Your task to perform on an android device: turn off picture-in-picture Image 0: 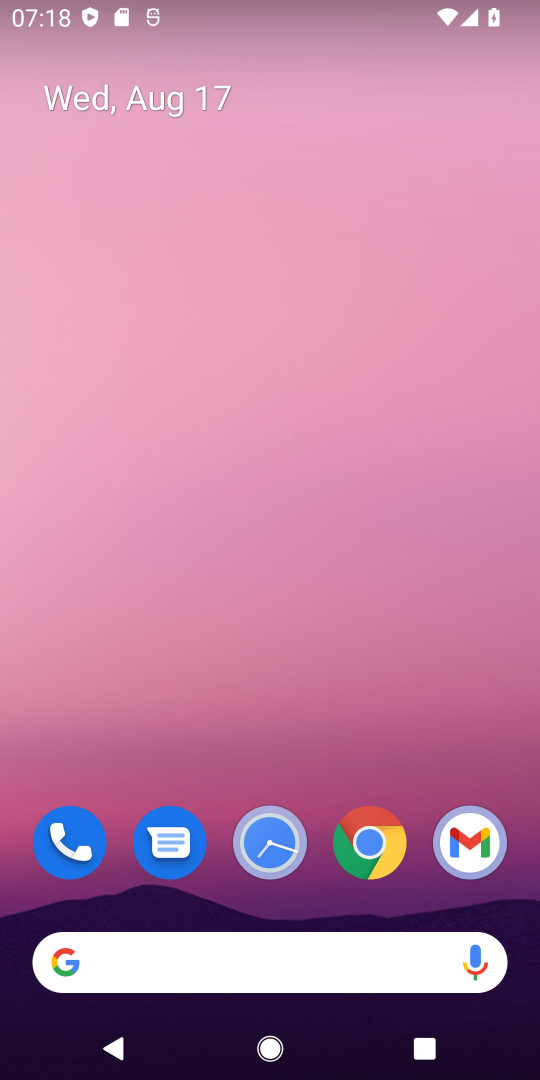
Step 0: click (381, 838)
Your task to perform on an android device: turn off picture-in-picture Image 1: 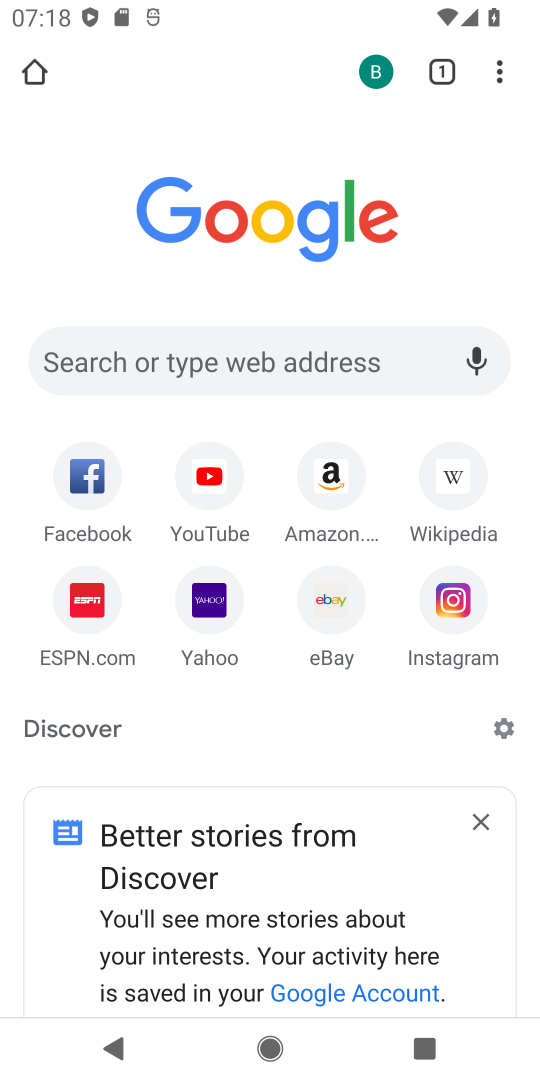
Step 1: press back button
Your task to perform on an android device: turn off picture-in-picture Image 2: 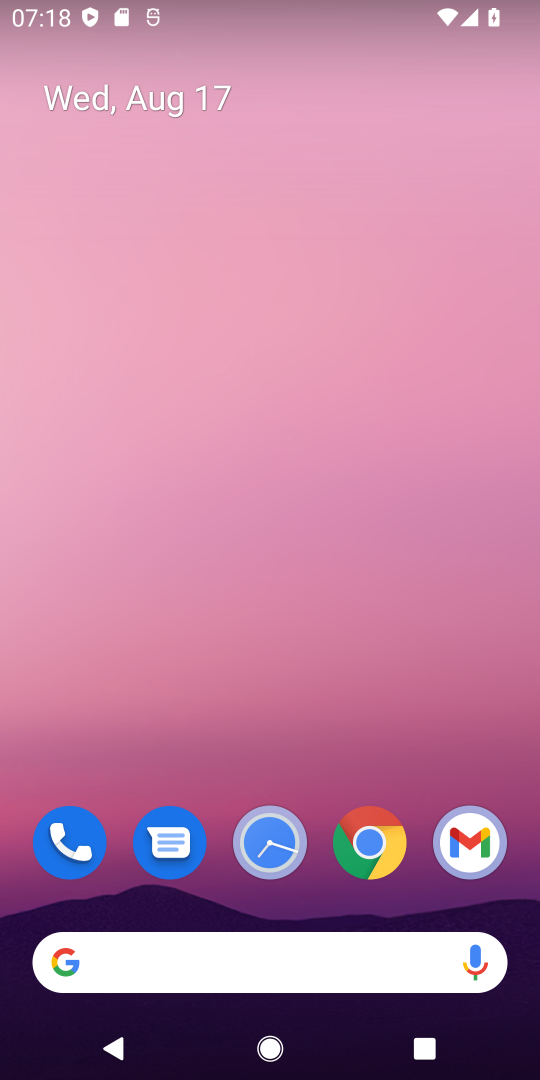
Step 2: click (369, 842)
Your task to perform on an android device: turn off picture-in-picture Image 3: 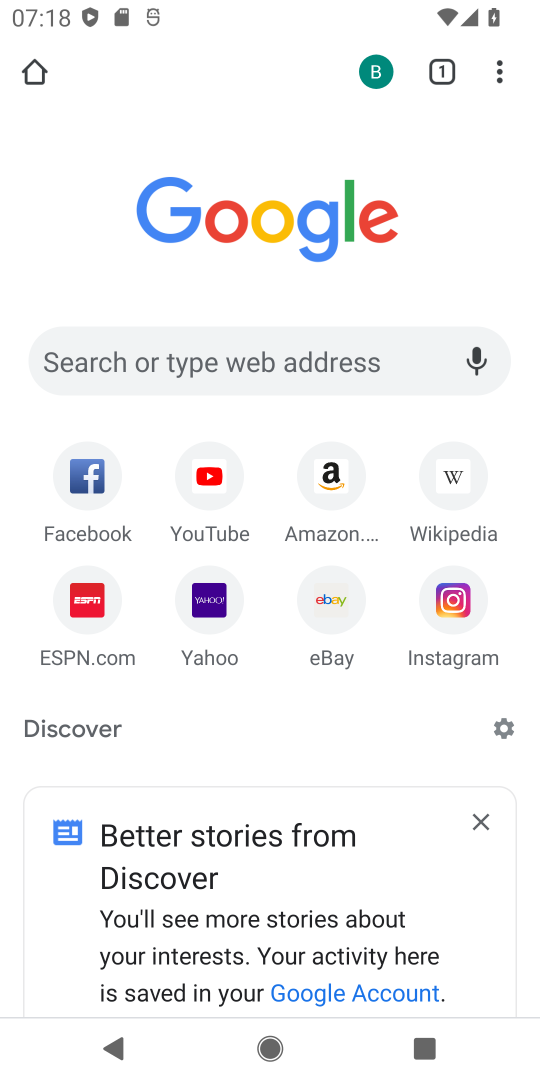
Step 3: press back button
Your task to perform on an android device: turn off picture-in-picture Image 4: 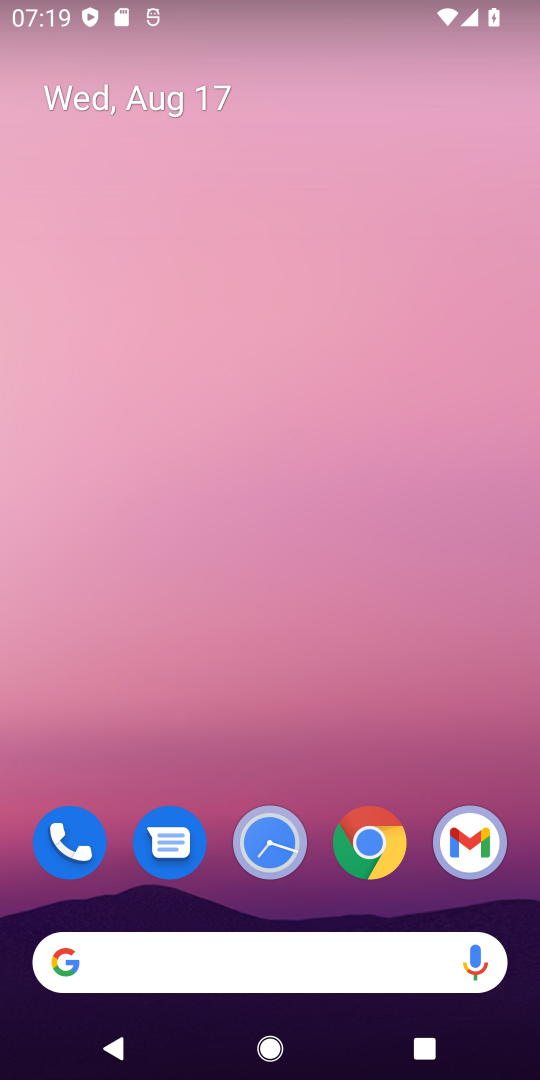
Step 4: click (376, 836)
Your task to perform on an android device: turn off picture-in-picture Image 5: 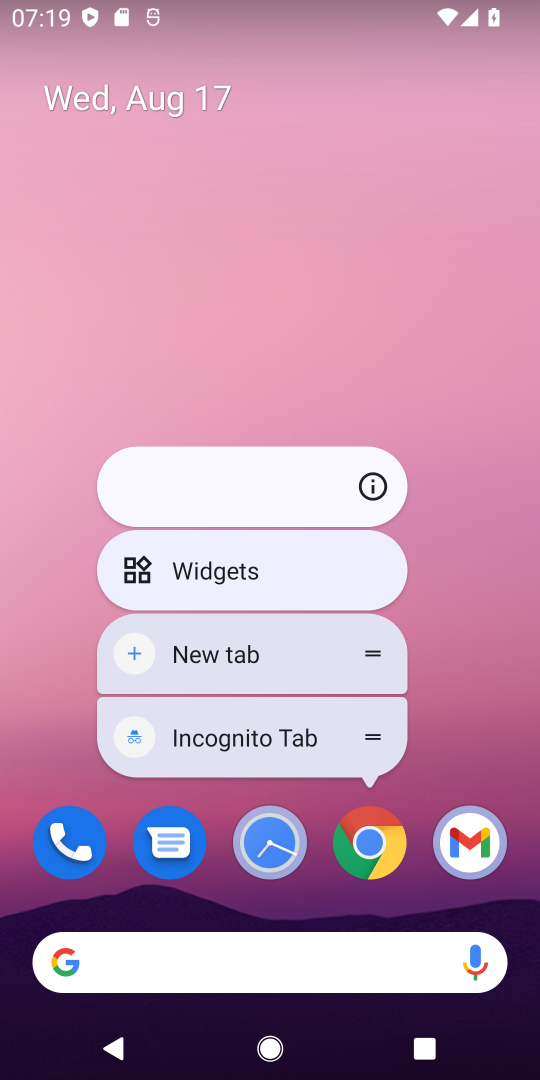
Step 5: click (375, 480)
Your task to perform on an android device: turn off picture-in-picture Image 6: 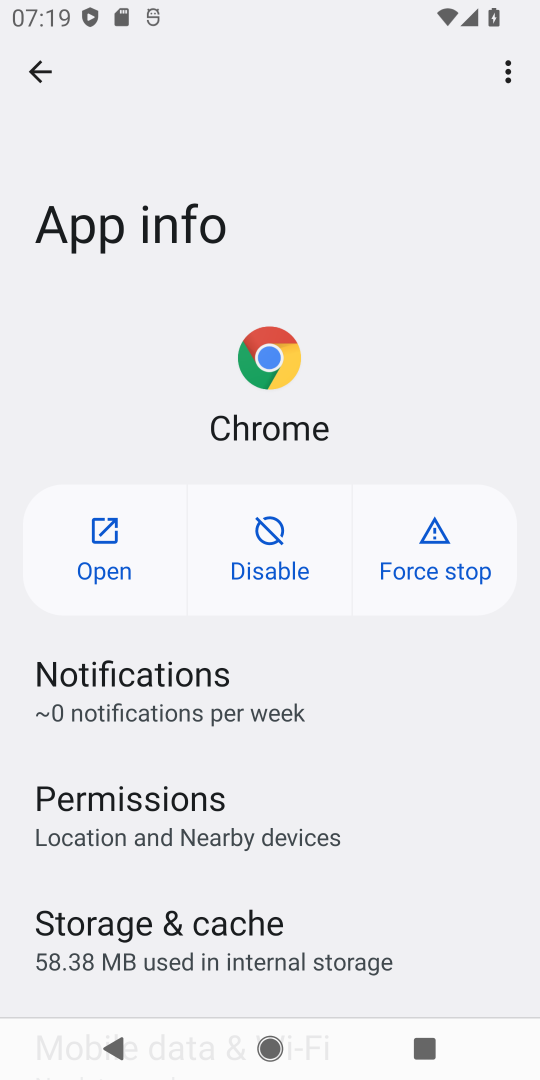
Step 6: drag from (282, 857) to (341, 16)
Your task to perform on an android device: turn off picture-in-picture Image 7: 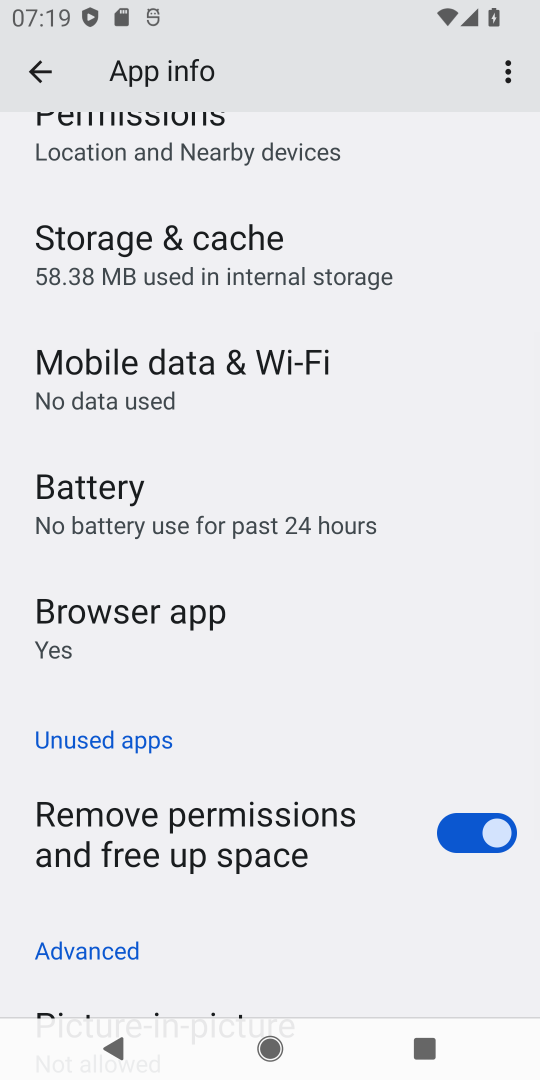
Step 7: drag from (323, 681) to (344, 2)
Your task to perform on an android device: turn off picture-in-picture Image 8: 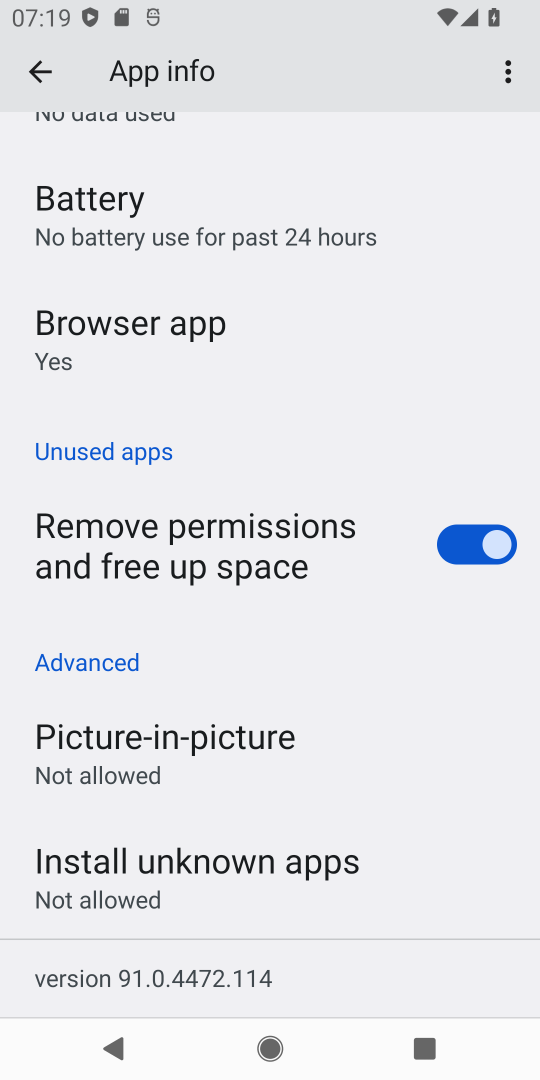
Step 8: click (229, 731)
Your task to perform on an android device: turn off picture-in-picture Image 9: 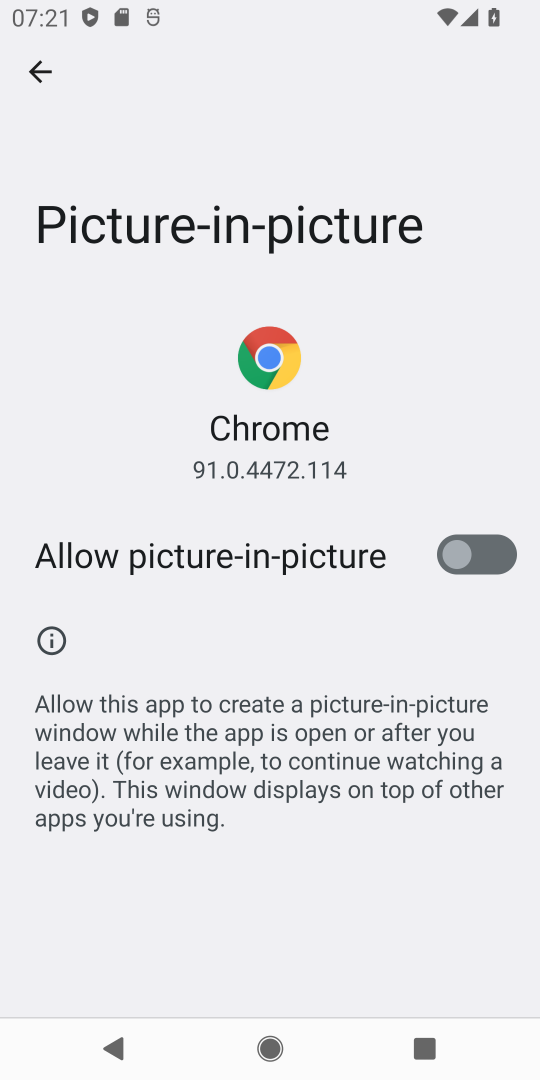
Step 9: task complete